Your task to perform on an android device: add a label to a message in the gmail app Image 0: 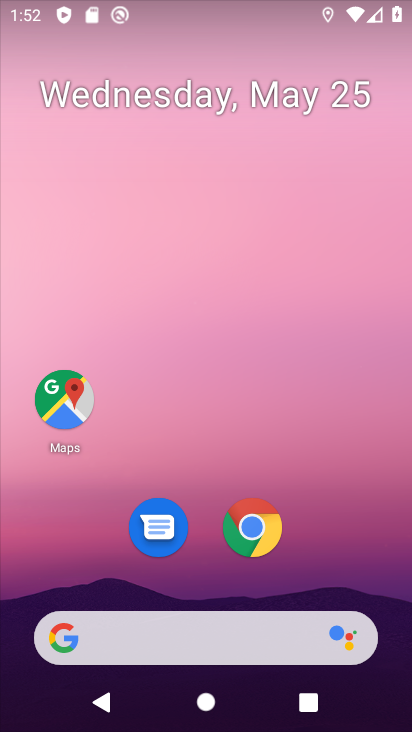
Step 0: drag from (113, 529) to (192, 168)
Your task to perform on an android device: add a label to a message in the gmail app Image 1: 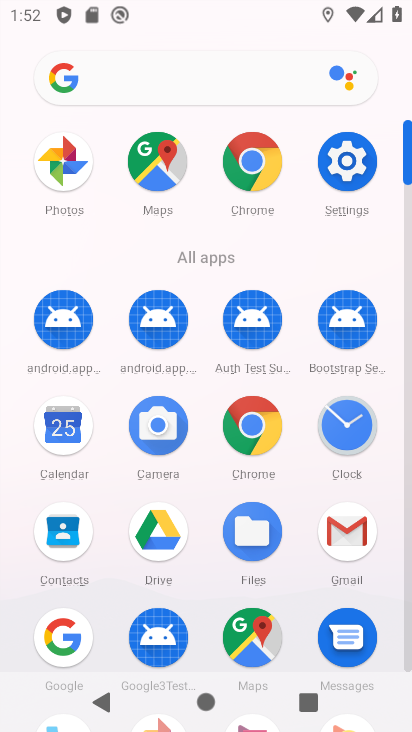
Step 1: click (345, 541)
Your task to perform on an android device: add a label to a message in the gmail app Image 2: 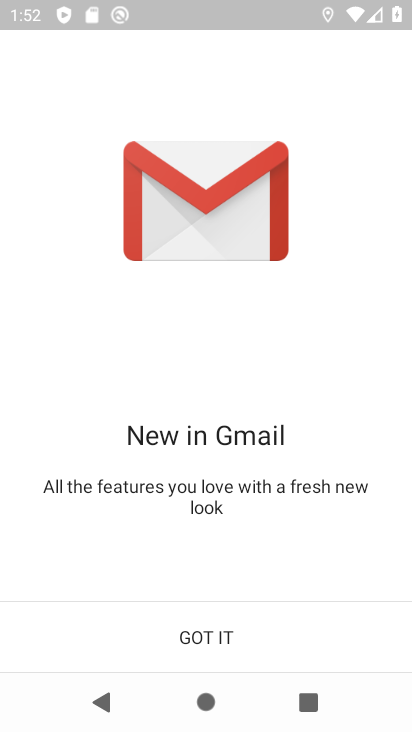
Step 2: click (216, 643)
Your task to perform on an android device: add a label to a message in the gmail app Image 3: 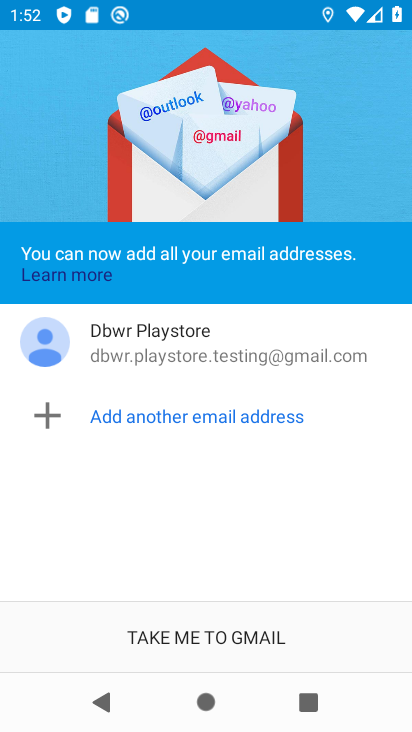
Step 3: click (216, 643)
Your task to perform on an android device: add a label to a message in the gmail app Image 4: 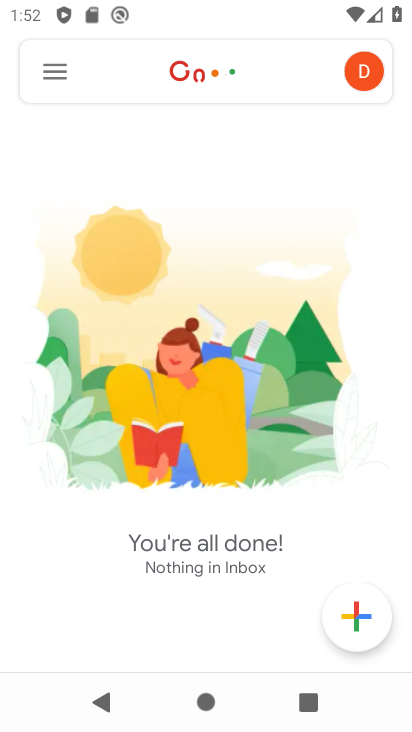
Step 4: click (58, 84)
Your task to perform on an android device: add a label to a message in the gmail app Image 5: 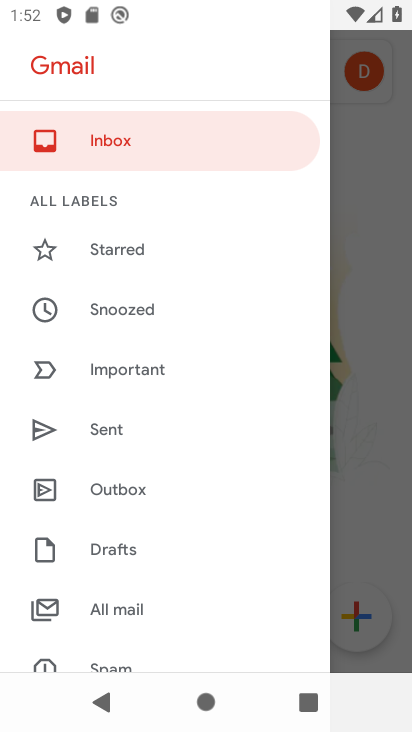
Step 5: click (143, 617)
Your task to perform on an android device: add a label to a message in the gmail app Image 6: 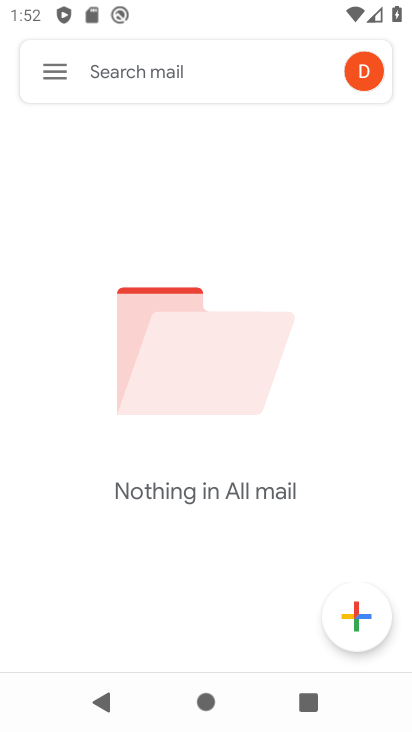
Step 6: task complete